Your task to perform on an android device: turn off notifications settings in the gmail app Image 0: 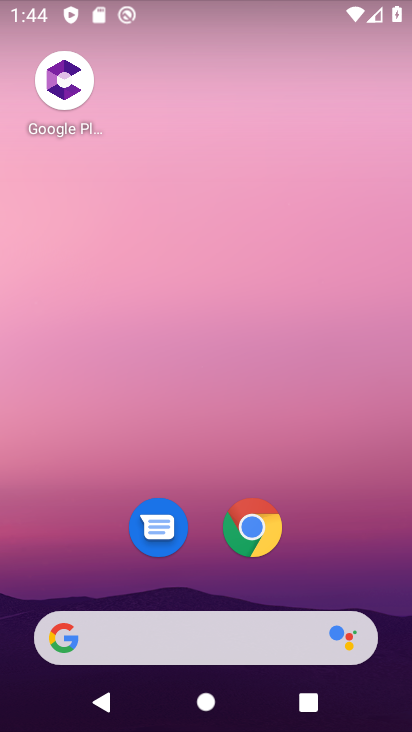
Step 0: drag from (255, 444) to (290, 90)
Your task to perform on an android device: turn off notifications settings in the gmail app Image 1: 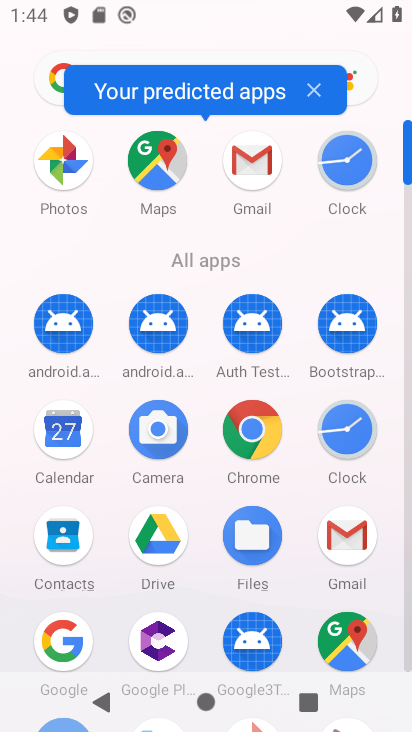
Step 1: click (245, 159)
Your task to perform on an android device: turn off notifications settings in the gmail app Image 2: 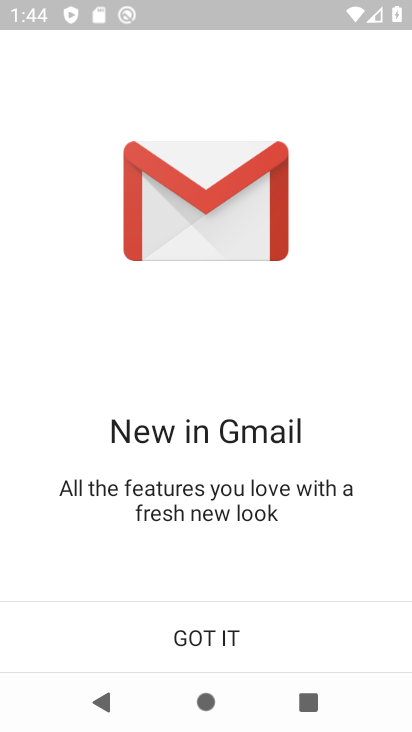
Step 2: click (173, 644)
Your task to perform on an android device: turn off notifications settings in the gmail app Image 3: 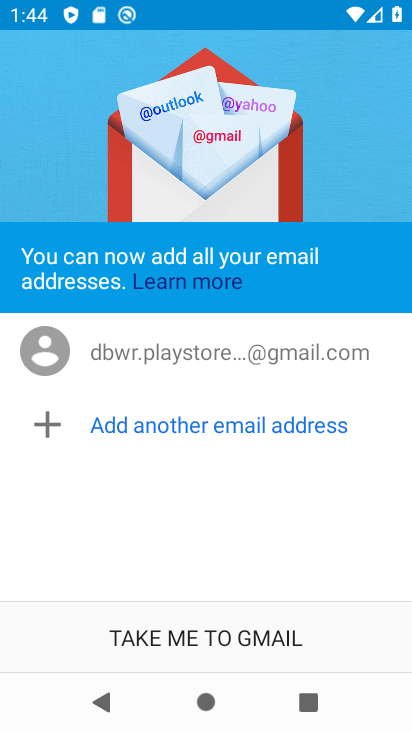
Step 3: click (173, 644)
Your task to perform on an android device: turn off notifications settings in the gmail app Image 4: 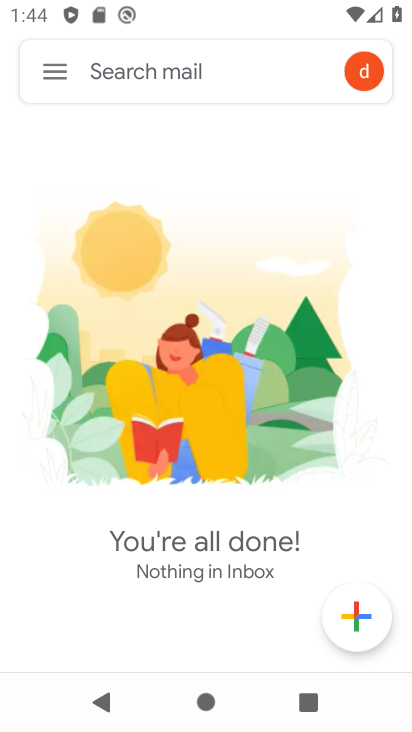
Step 4: click (58, 54)
Your task to perform on an android device: turn off notifications settings in the gmail app Image 5: 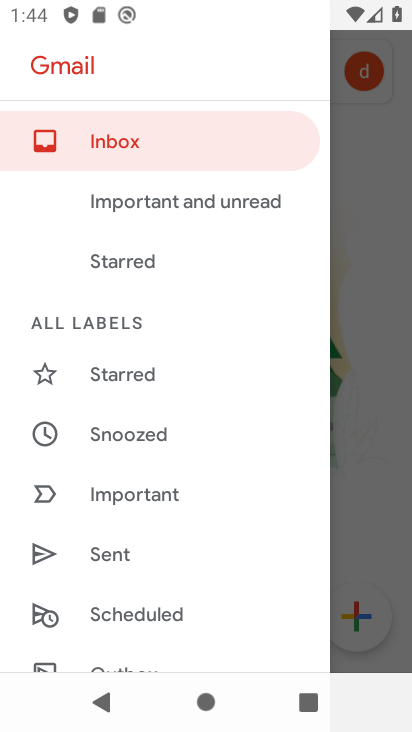
Step 5: drag from (170, 616) to (164, 231)
Your task to perform on an android device: turn off notifications settings in the gmail app Image 6: 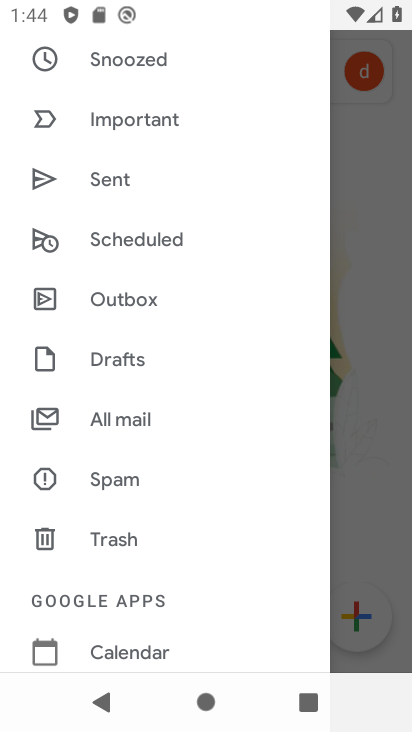
Step 6: drag from (117, 653) to (125, 238)
Your task to perform on an android device: turn off notifications settings in the gmail app Image 7: 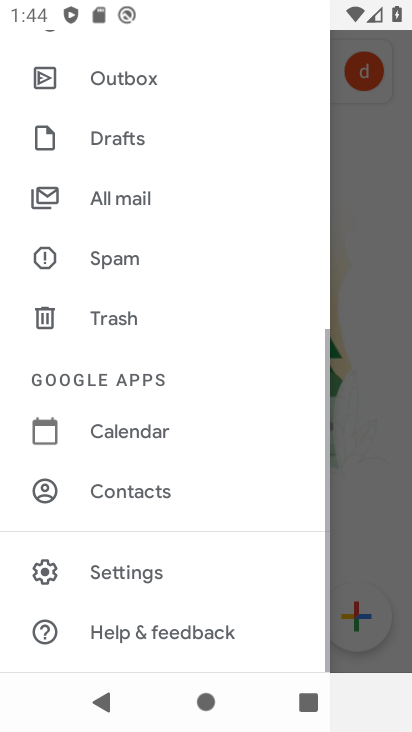
Step 7: click (120, 565)
Your task to perform on an android device: turn off notifications settings in the gmail app Image 8: 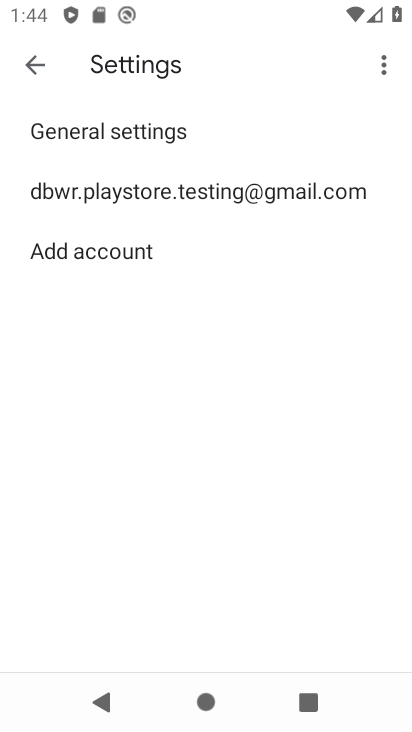
Step 8: click (92, 136)
Your task to perform on an android device: turn off notifications settings in the gmail app Image 9: 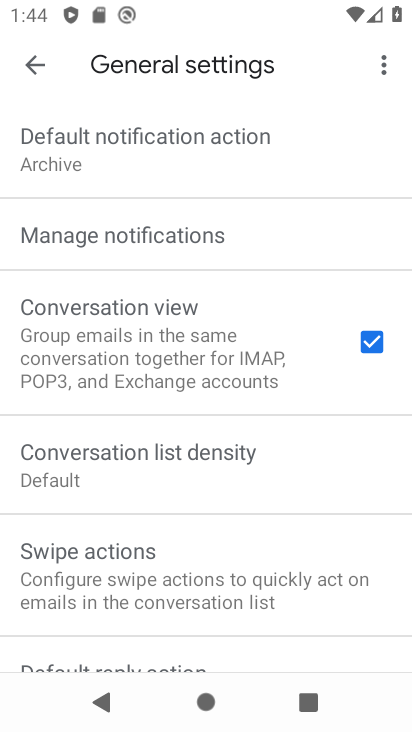
Step 9: click (113, 242)
Your task to perform on an android device: turn off notifications settings in the gmail app Image 10: 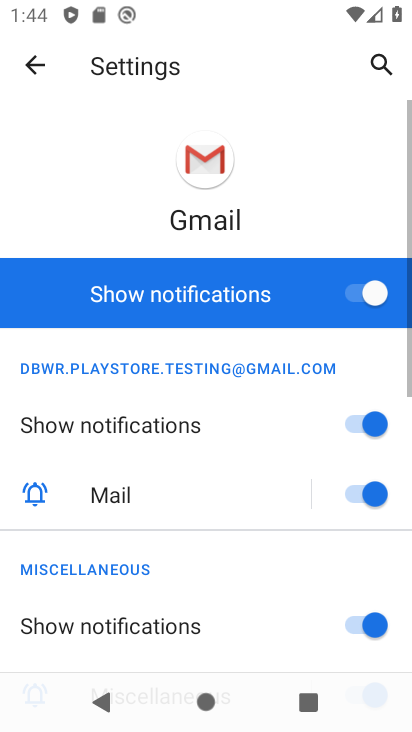
Step 10: click (339, 291)
Your task to perform on an android device: turn off notifications settings in the gmail app Image 11: 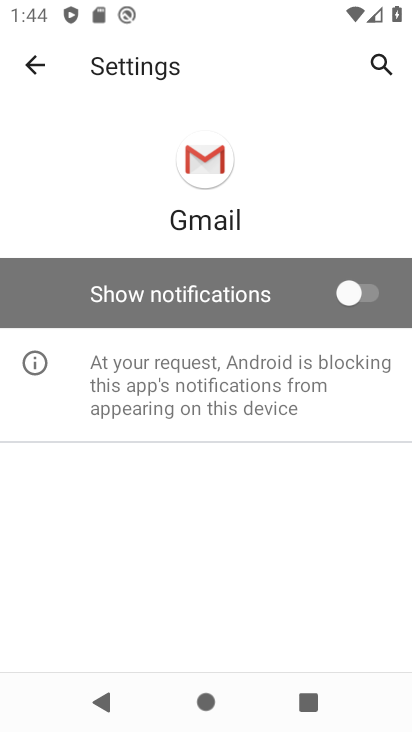
Step 11: task complete